Your task to perform on an android device: toggle data saver in the chrome app Image 0: 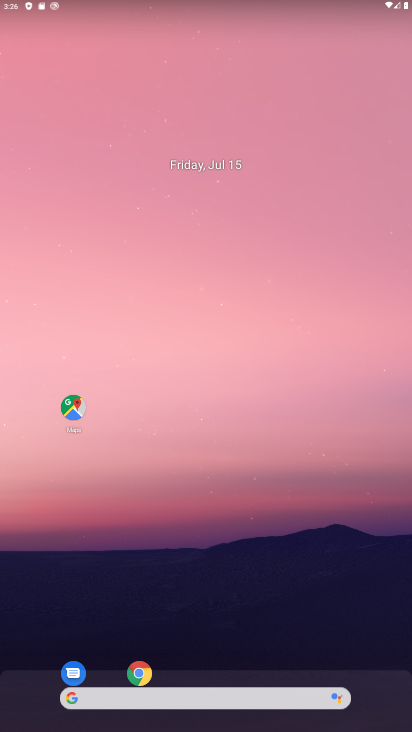
Step 0: click (142, 669)
Your task to perform on an android device: toggle data saver in the chrome app Image 1: 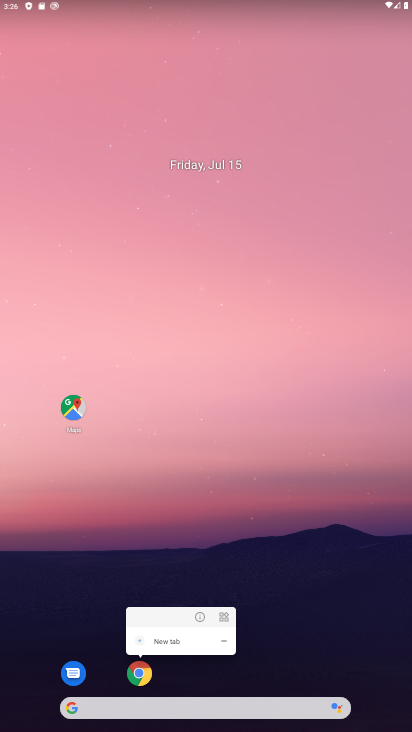
Step 1: click (143, 680)
Your task to perform on an android device: toggle data saver in the chrome app Image 2: 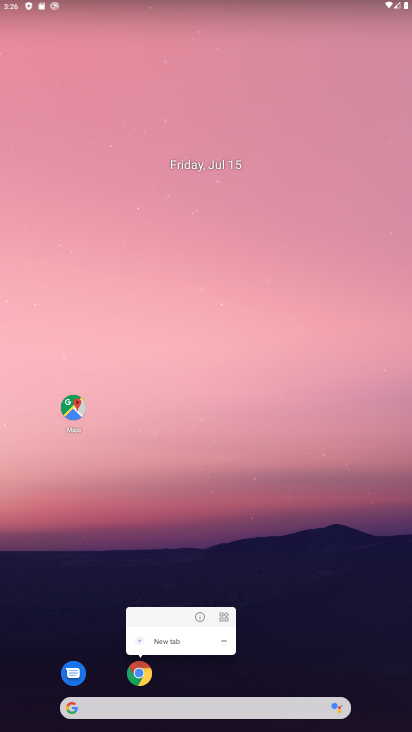
Step 2: click (143, 680)
Your task to perform on an android device: toggle data saver in the chrome app Image 3: 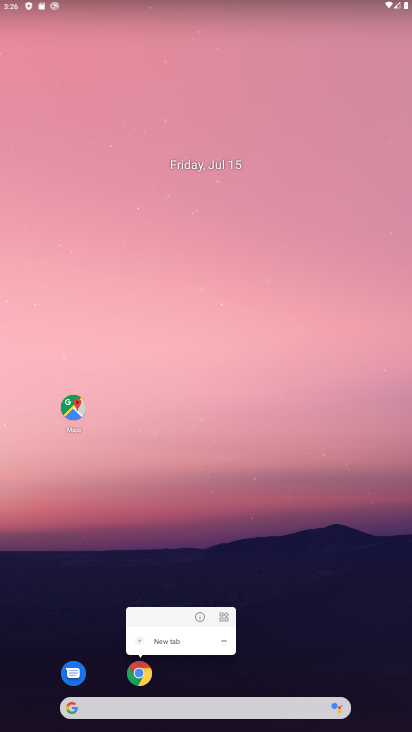
Step 3: click (138, 677)
Your task to perform on an android device: toggle data saver in the chrome app Image 4: 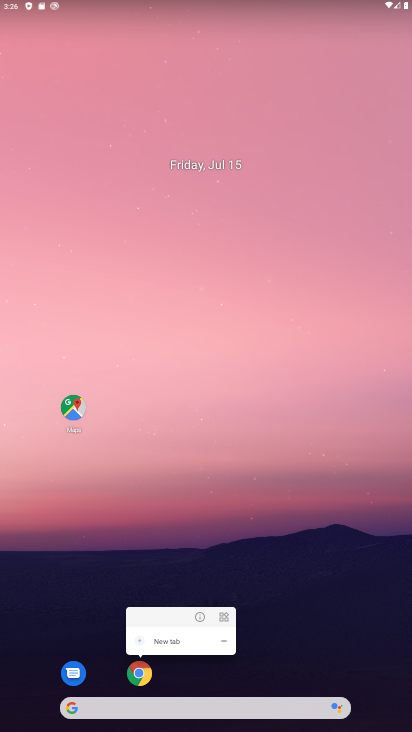
Step 4: click (142, 670)
Your task to perform on an android device: toggle data saver in the chrome app Image 5: 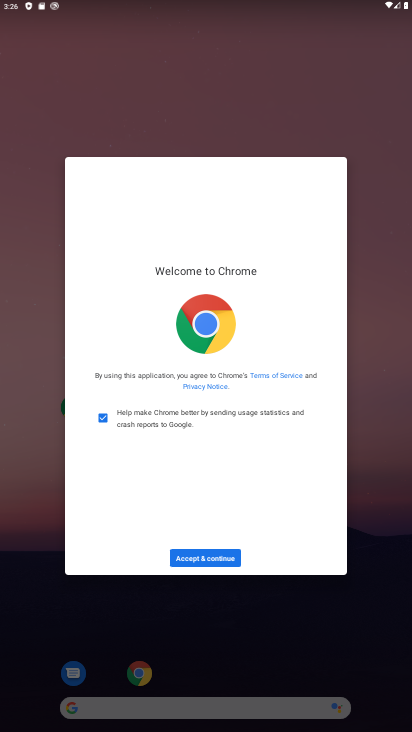
Step 5: click (225, 560)
Your task to perform on an android device: toggle data saver in the chrome app Image 6: 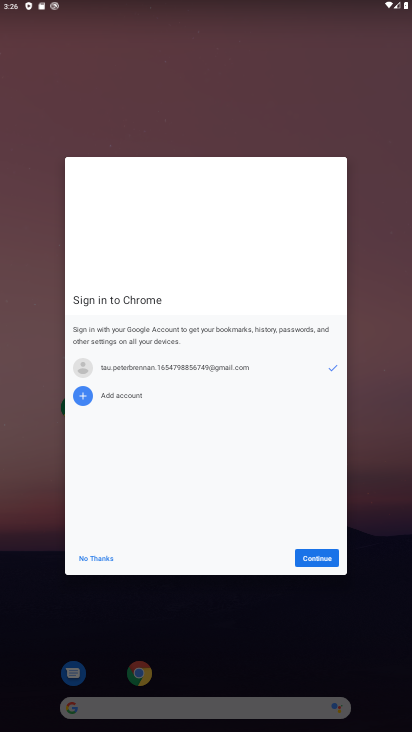
Step 6: click (303, 568)
Your task to perform on an android device: toggle data saver in the chrome app Image 7: 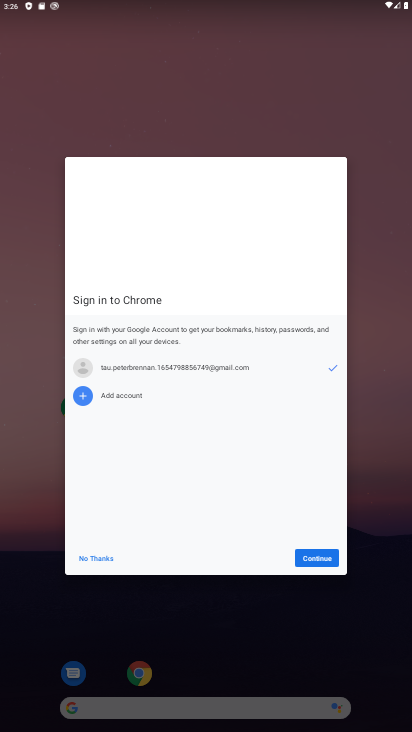
Step 7: click (314, 566)
Your task to perform on an android device: toggle data saver in the chrome app Image 8: 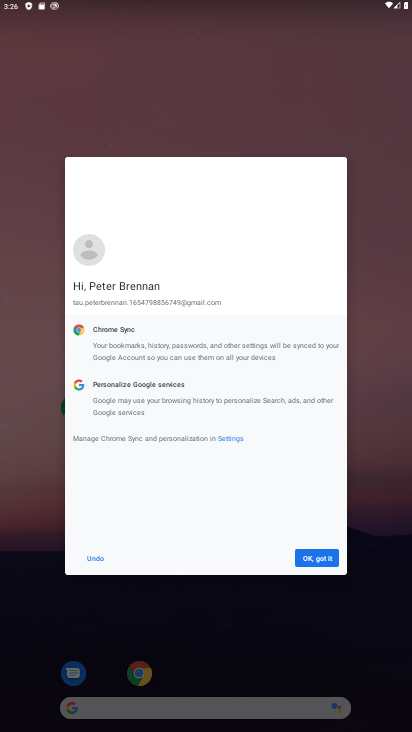
Step 8: click (318, 563)
Your task to perform on an android device: toggle data saver in the chrome app Image 9: 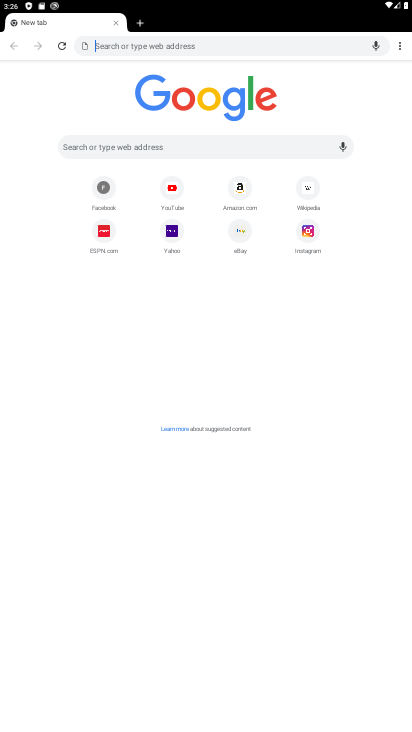
Step 9: drag from (396, 40) to (363, 204)
Your task to perform on an android device: toggle data saver in the chrome app Image 10: 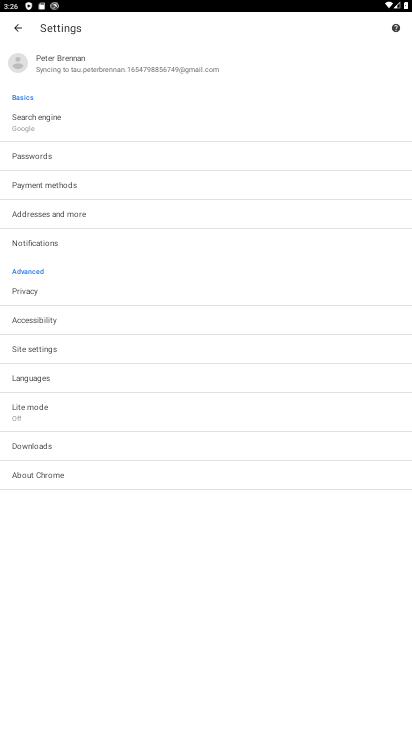
Step 10: click (70, 414)
Your task to perform on an android device: toggle data saver in the chrome app Image 11: 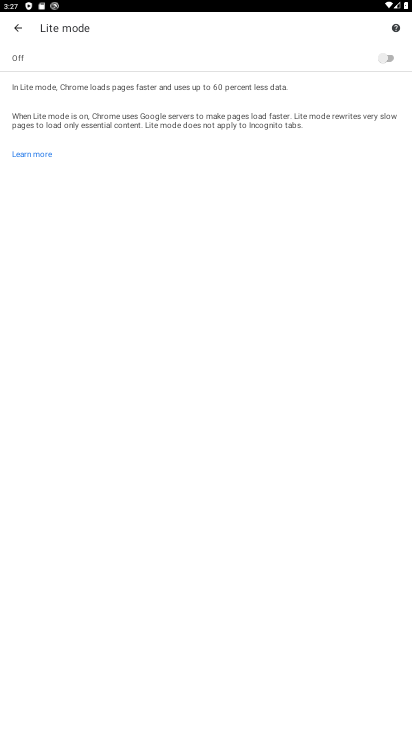
Step 11: click (396, 55)
Your task to perform on an android device: toggle data saver in the chrome app Image 12: 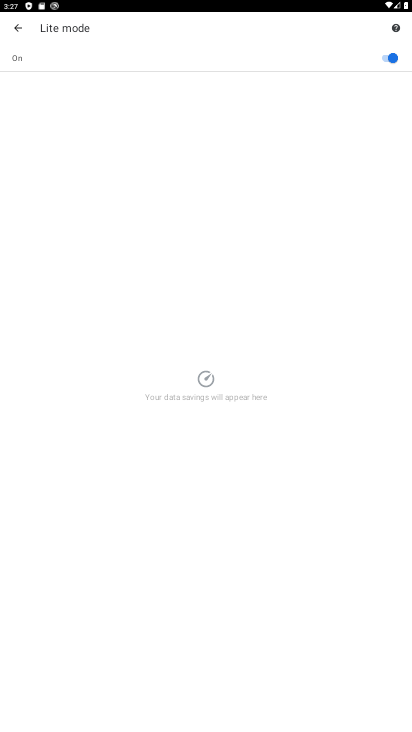
Step 12: task complete